Your task to perform on an android device: see tabs open on other devices in the chrome app Image 0: 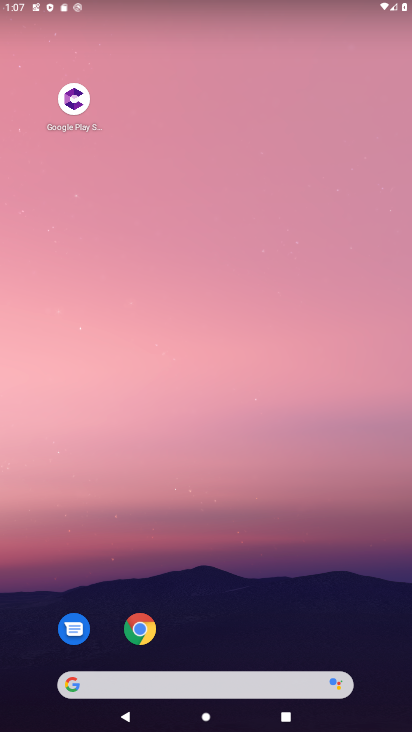
Step 0: click (149, 618)
Your task to perform on an android device: see tabs open on other devices in the chrome app Image 1: 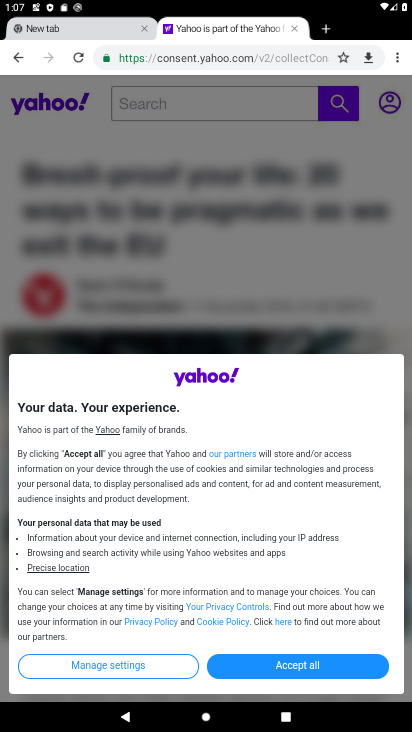
Step 1: click (324, 25)
Your task to perform on an android device: see tabs open on other devices in the chrome app Image 2: 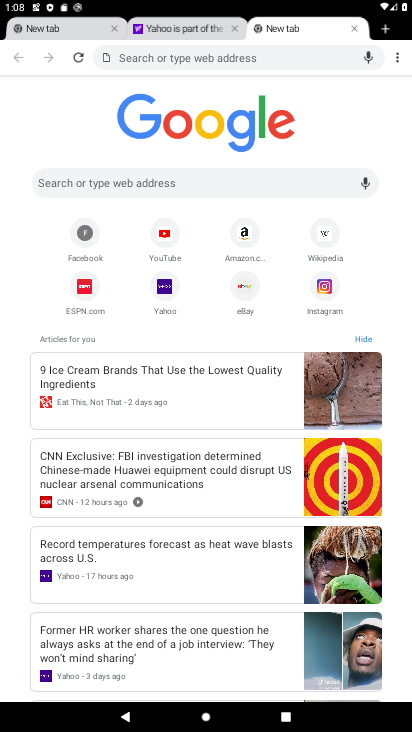
Step 2: task complete